Your task to perform on an android device: empty trash in the gmail app Image 0: 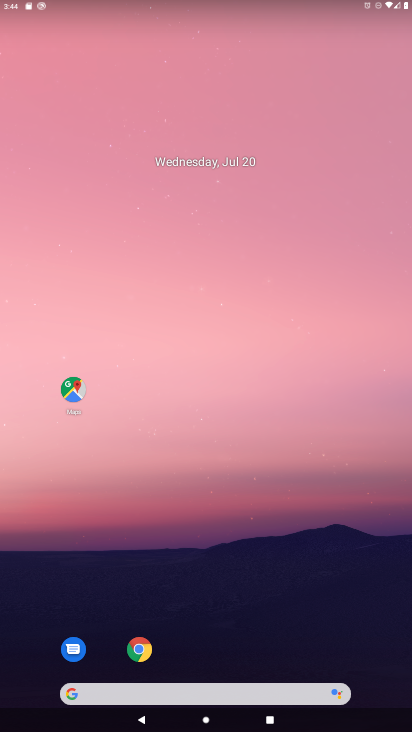
Step 0: drag from (184, 693) to (248, 8)
Your task to perform on an android device: empty trash in the gmail app Image 1: 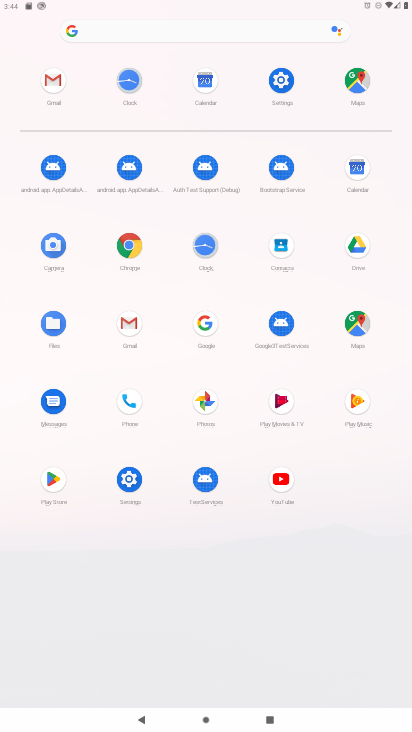
Step 1: click (53, 80)
Your task to perform on an android device: empty trash in the gmail app Image 2: 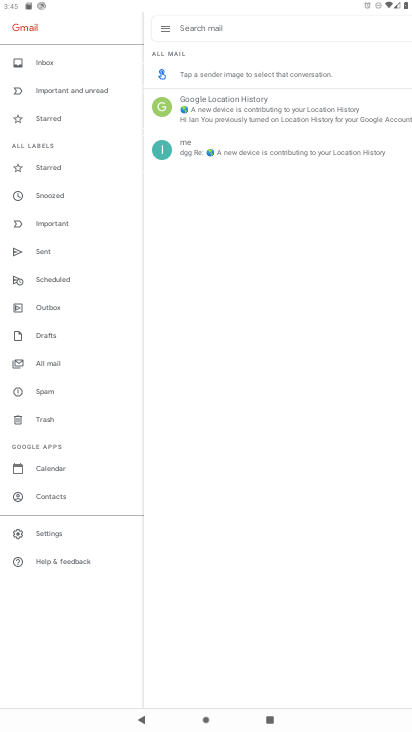
Step 2: click (44, 418)
Your task to perform on an android device: empty trash in the gmail app Image 3: 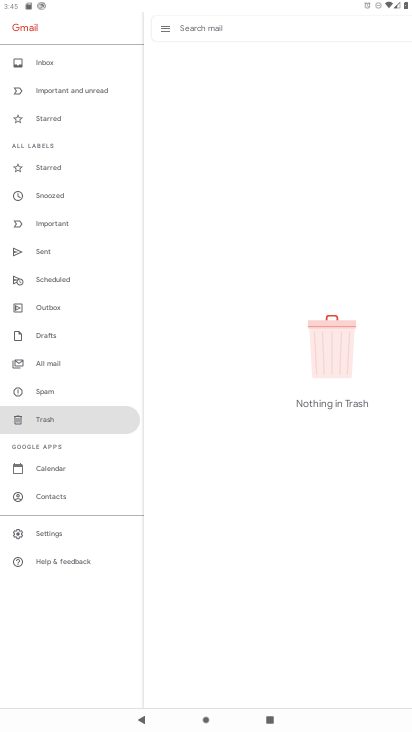
Step 3: task complete